Your task to perform on an android device: toggle notifications settings in the gmail app Image 0: 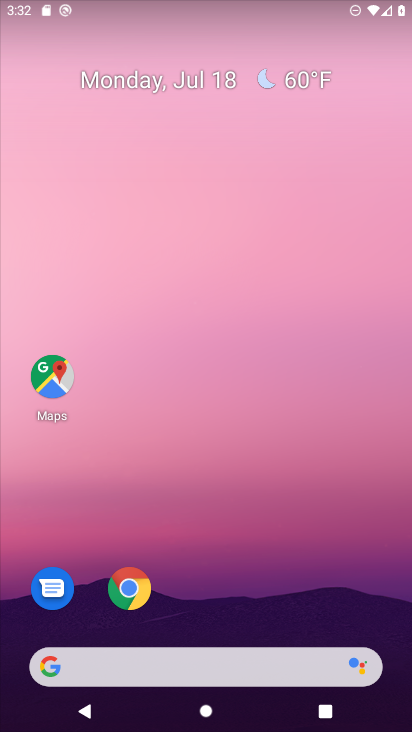
Step 0: drag from (210, 620) to (205, 154)
Your task to perform on an android device: toggle notifications settings in the gmail app Image 1: 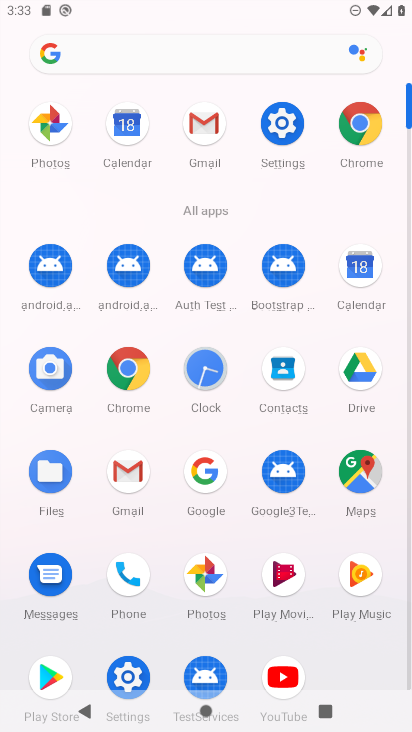
Step 1: click (124, 462)
Your task to perform on an android device: toggle notifications settings in the gmail app Image 2: 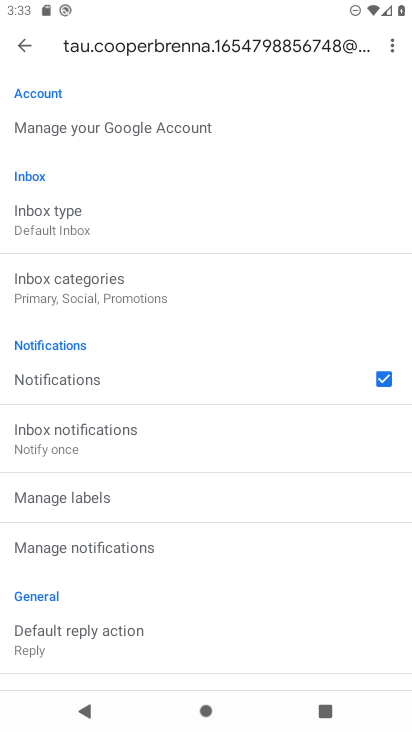
Step 2: click (16, 45)
Your task to perform on an android device: toggle notifications settings in the gmail app Image 3: 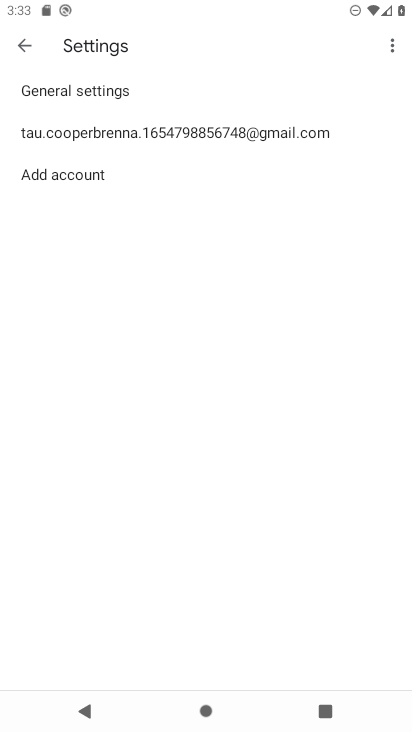
Step 3: click (149, 95)
Your task to perform on an android device: toggle notifications settings in the gmail app Image 4: 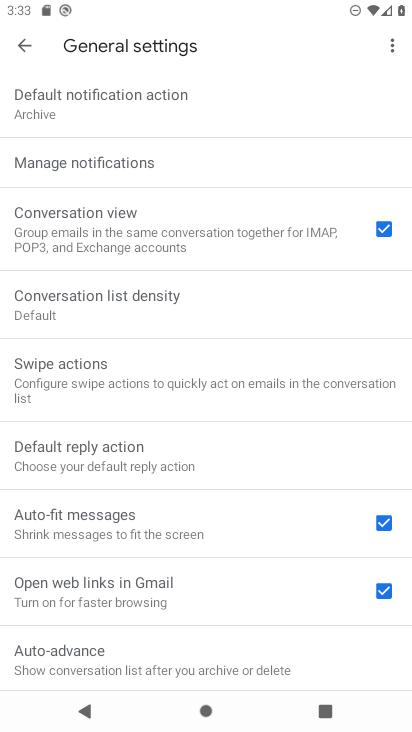
Step 4: click (157, 154)
Your task to perform on an android device: toggle notifications settings in the gmail app Image 5: 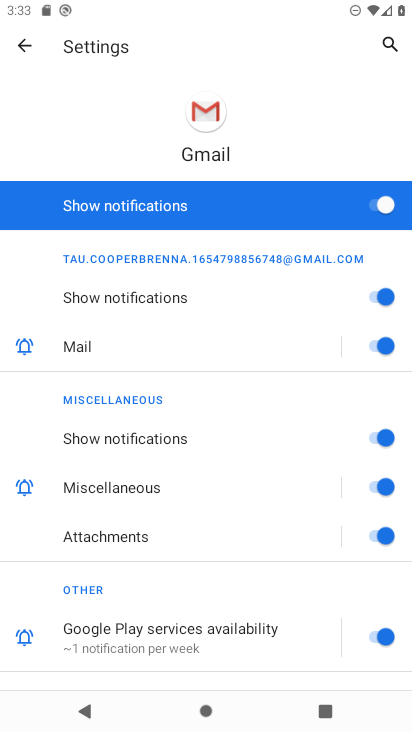
Step 5: click (381, 207)
Your task to perform on an android device: toggle notifications settings in the gmail app Image 6: 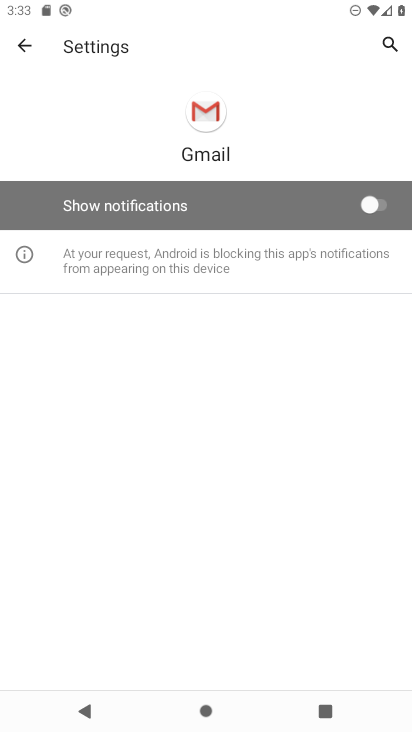
Step 6: task complete